Your task to perform on an android device: Open Google Chrome and click the shortcut for Amazon.com Image 0: 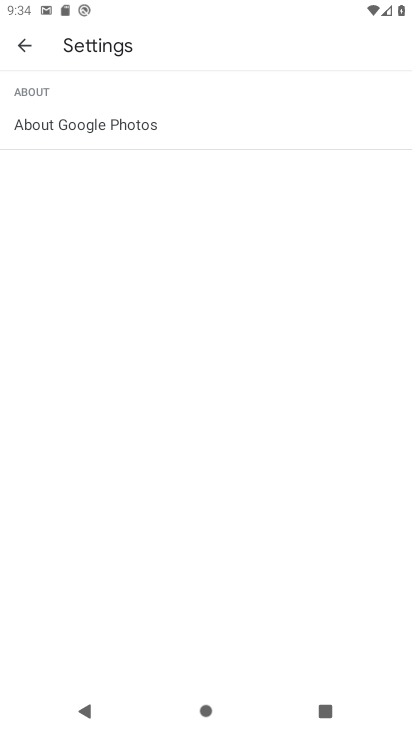
Step 0: press home button
Your task to perform on an android device: Open Google Chrome and click the shortcut for Amazon.com Image 1: 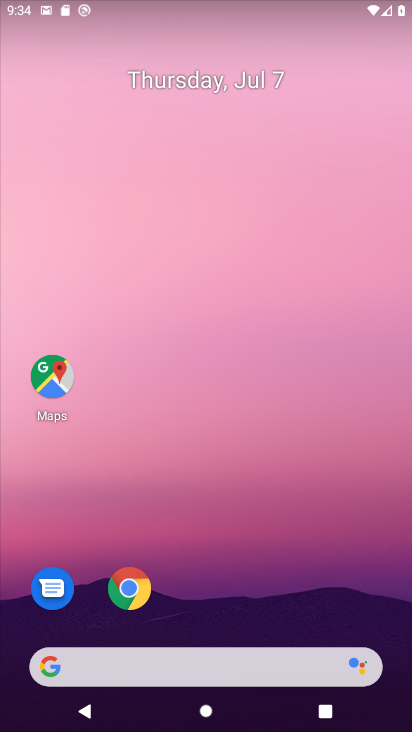
Step 1: click (133, 585)
Your task to perform on an android device: Open Google Chrome and click the shortcut for Amazon.com Image 2: 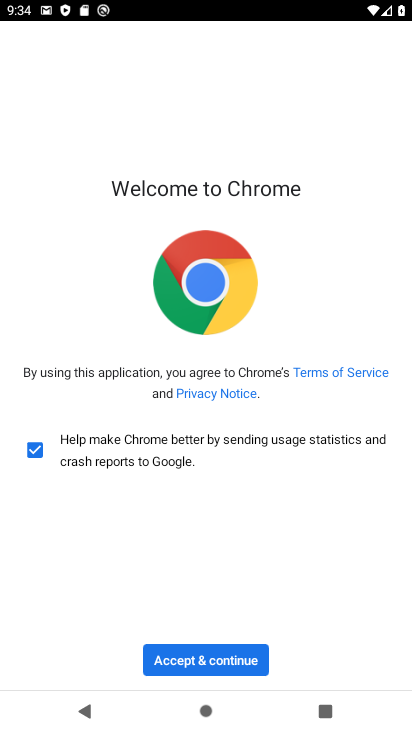
Step 2: click (232, 645)
Your task to perform on an android device: Open Google Chrome and click the shortcut for Amazon.com Image 3: 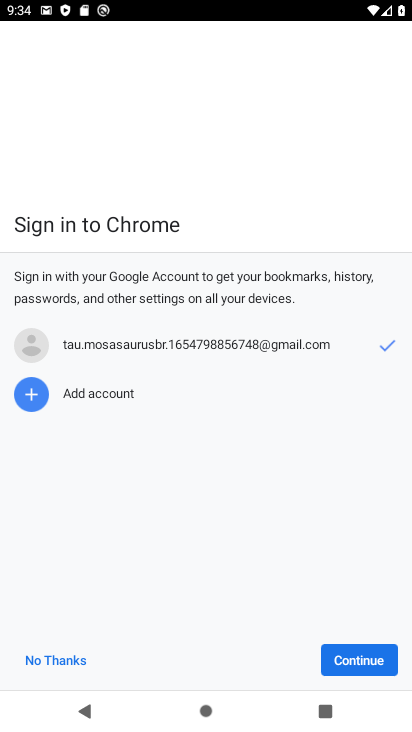
Step 3: click (367, 643)
Your task to perform on an android device: Open Google Chrome and click the shortcut for Amazon.com Image 4: 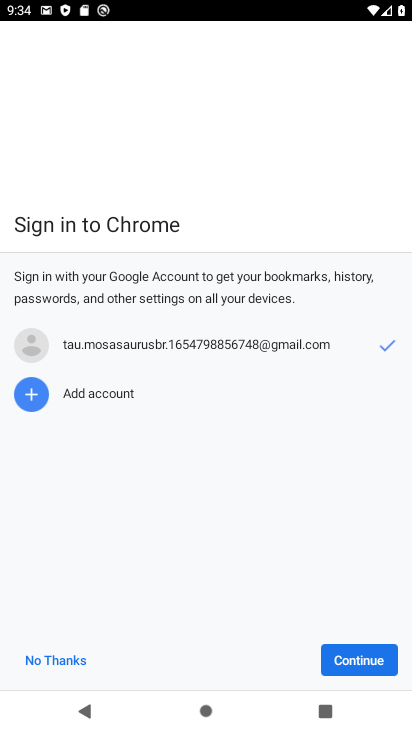
Step 4: click (375, 666)
Your task to perform on an android device: Open Google Chrome and click the shortcut for Amazon.com Image 5: 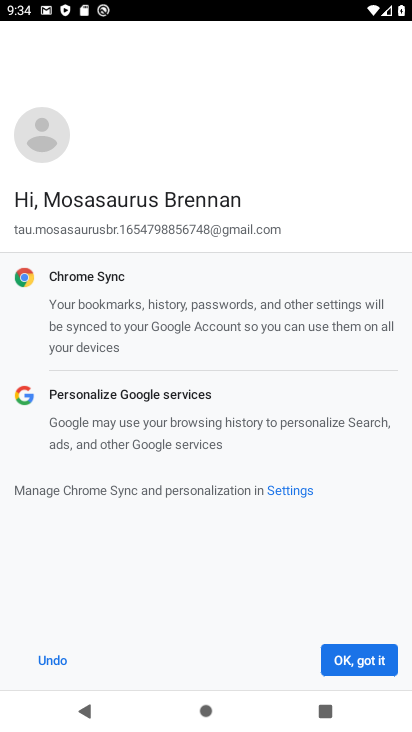
Step 5: click (375, 666)
Your task to perform on an android device: Open Google Chrome and click the shortcut for Amazon.com Image 6: 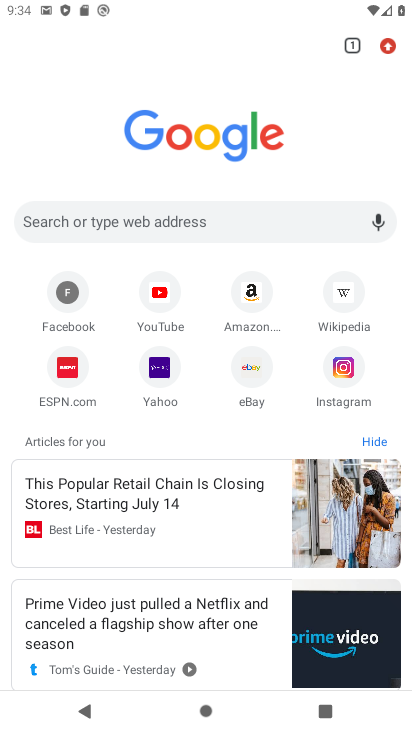
Step 6: task complete